Your task to perform on an android device: empty trash in the gmail app Image 0: 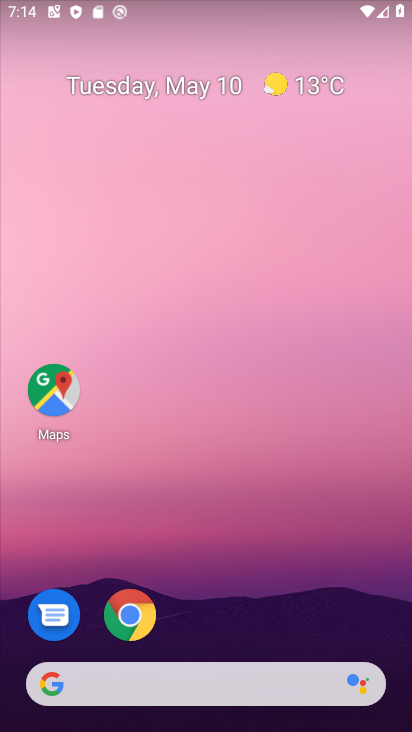
Step 0: drag from (293, 360) to (304, 45)
Your task to perform on an android device: empty trash in the gmail app Image 1: 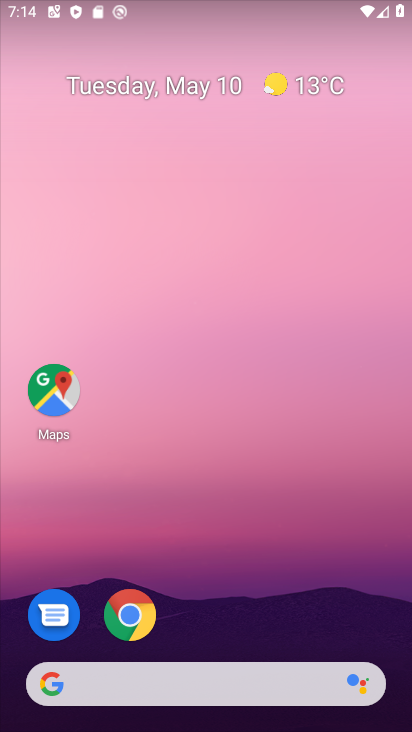
Step 1: drag from (296, 499) to (277, 6)
Your task to perform on an android device: empty trash in the gmail app Image 2: 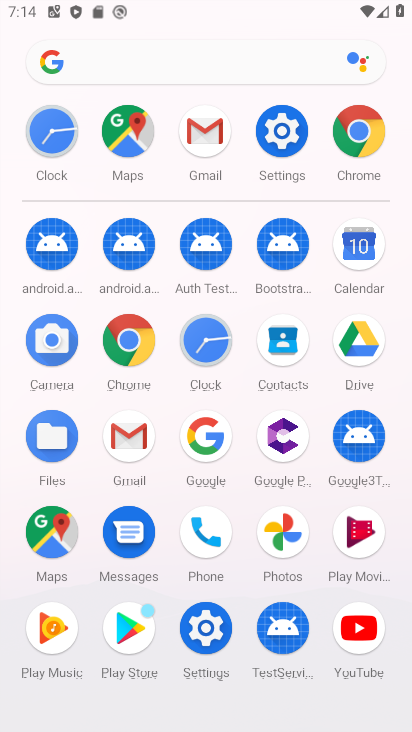
Step 2: click (215, 146)
Your task to perform on an android device: empty trash in the gmail app Image 3: 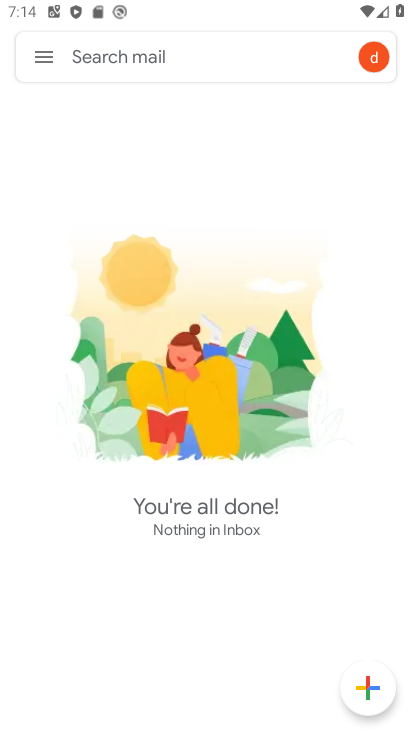
Step 3: click (41, 60)
Your task to perform on an android device: empty trash in the gmail app Image 4: 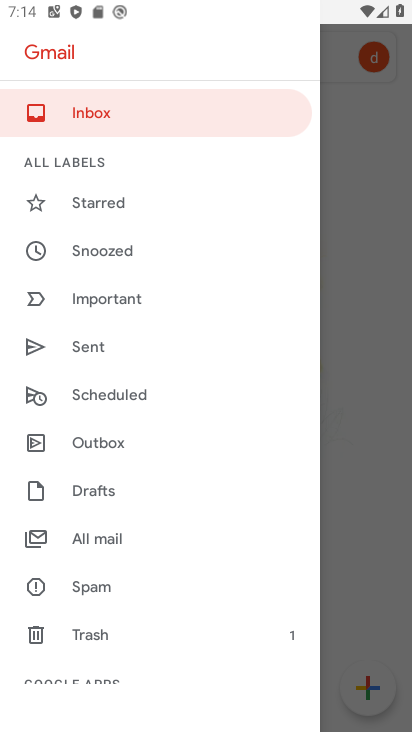
Step 4: drag from (166, 647) to (167, 321)
Your task to perform on an android device: empty trash in the gmail app Image 5: 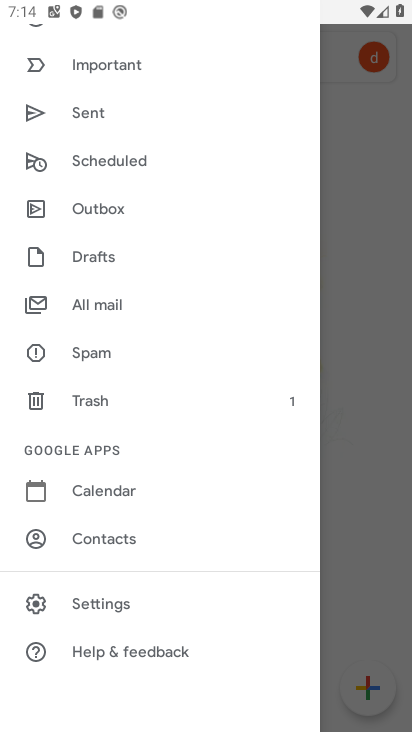
Step 5: click (90, 409)
Your task to perform on an android device: empty trash in the gmail app Image 6: 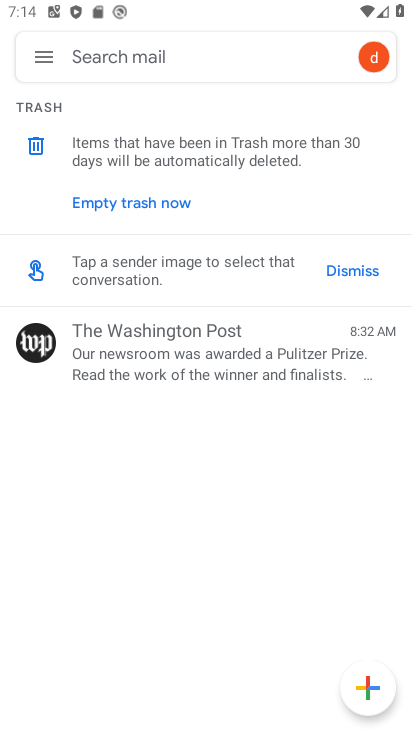
Step 6: click (150, 209)
Your task to perform on an android device: empty trash in the gmail app Image 7: 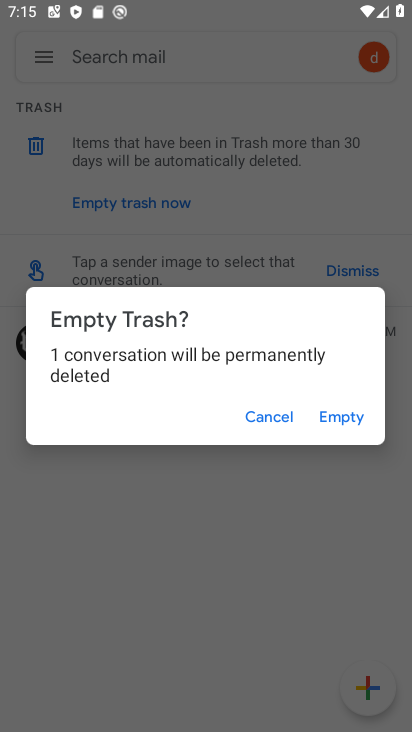
Step 7: click (350, 415)
Your task to perform on an android device: empty trash in the gmail app Image 8: 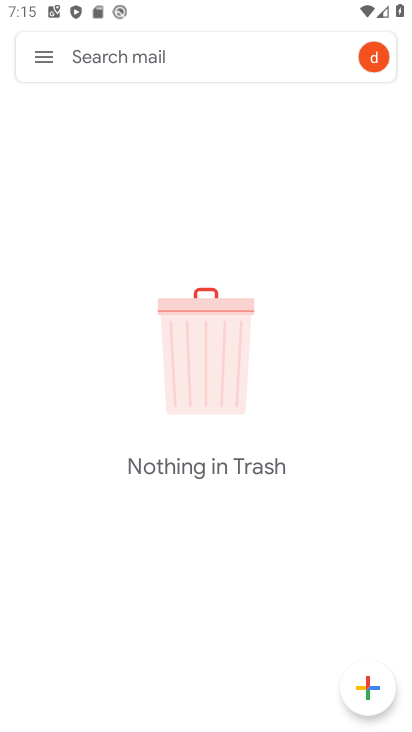
Step 8: task complete